Your task to perform on an android device: Go to privacy settings Image 0: 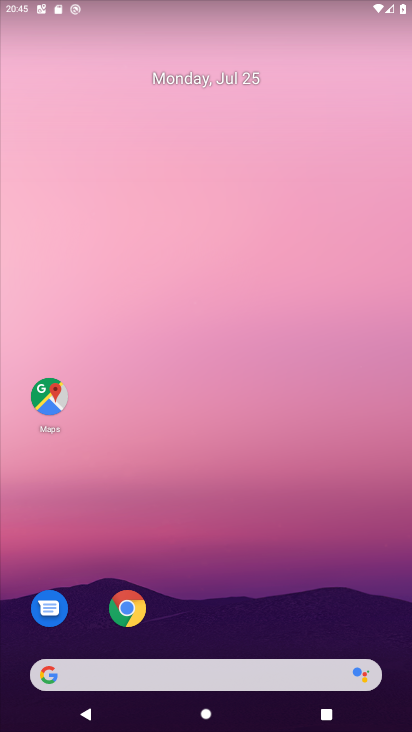
Step 0: drag from (321, 573) to (308, 33)
Your task to perform on an android device: Go to privacy settings Image 1: 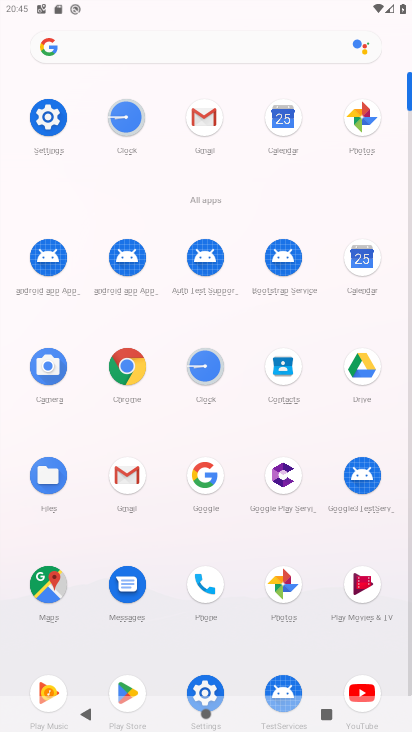
Step 1: click (44, 135)
Your task to perform on an android device: Go to privacy settings Image 2: 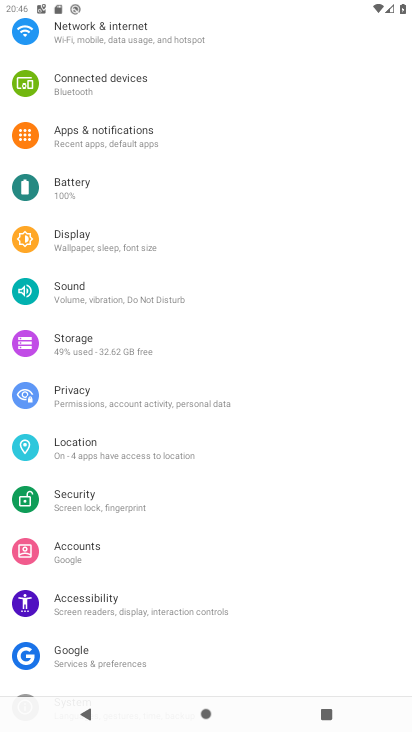
Step 2: click (69, 404)
Your task to perform on an android device: Go to privacy settings Image 3: 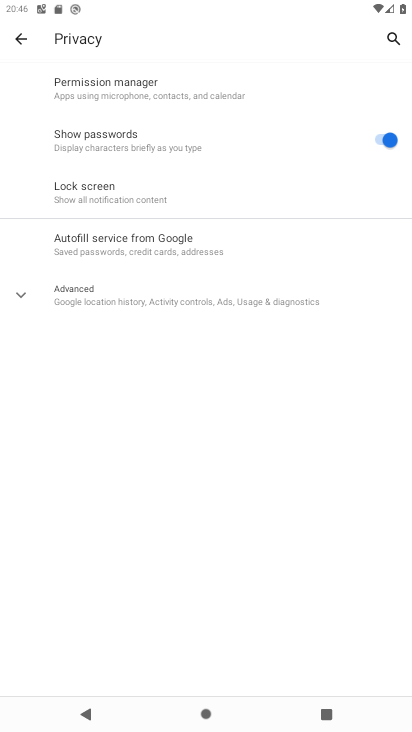
Step 3: task complete